Your task to perform on an android device: What is the recent news? Image 0: 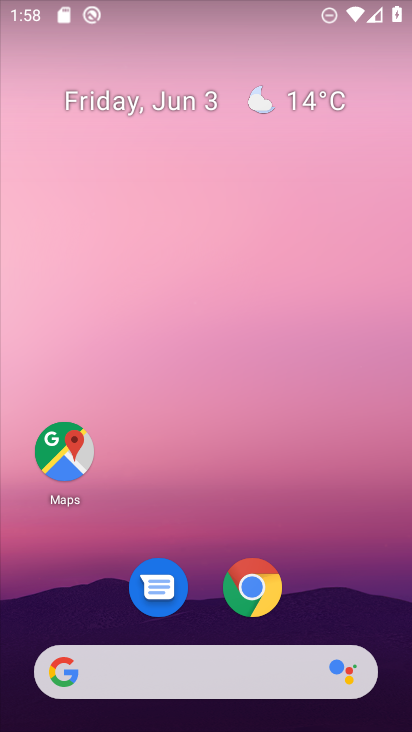
Step 0: click (233, 649)
Your task to perform on an android device: What is the recent news? Image 1: 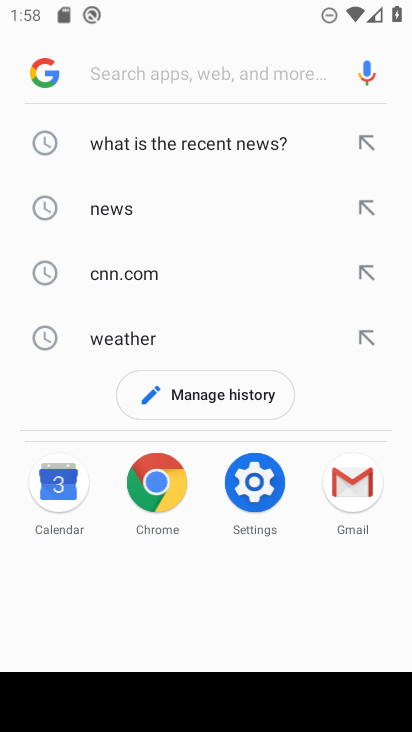
Step 1: type "what is the recent news"
Your task to perform on an android device: What is the recent news? Image 2: 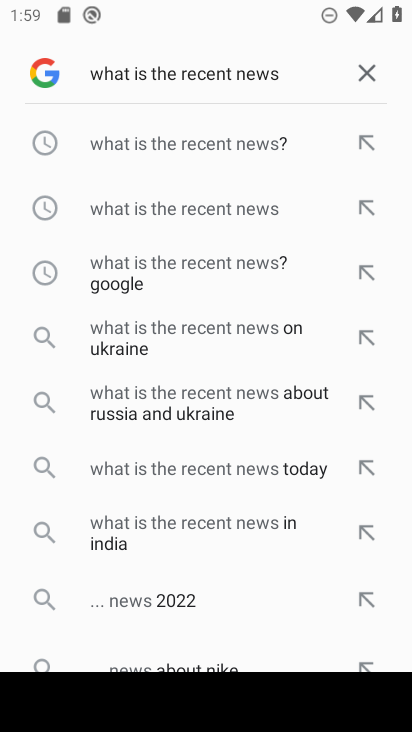
Step 2: click (195, 148)
Your task to perform on an android device: What is the recent news? Image 3: 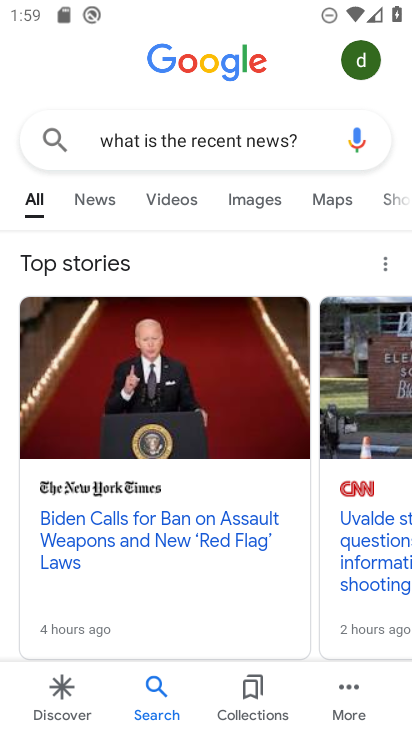
Step 3: click (102, 199)
Your task to perform on an android device: What is the recent news? Image 4: 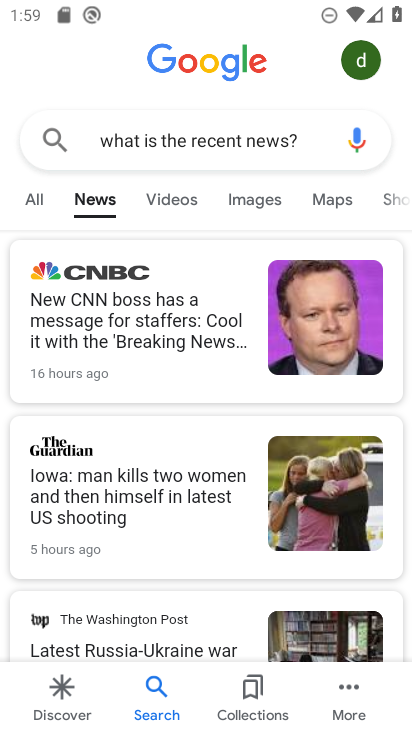
Step 4: task complete